Your task to perform on an android device: change text size in settings app Image 0: 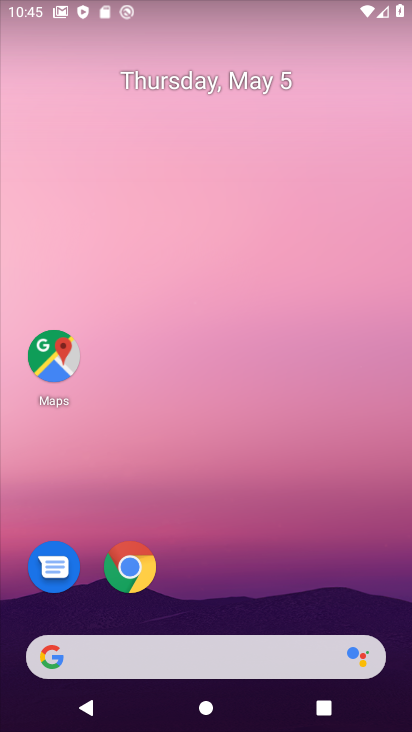
Step 0: drag from (227, 511) to (297, 43)
Your task to perform on an android device: change text size in settings app Image 1: 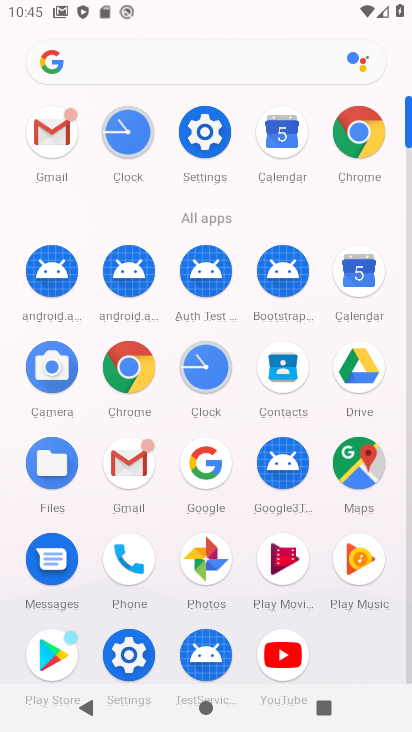
Step 1: click (206, 140)
Your task to perform on an android device: change text size in settings app Image 2: 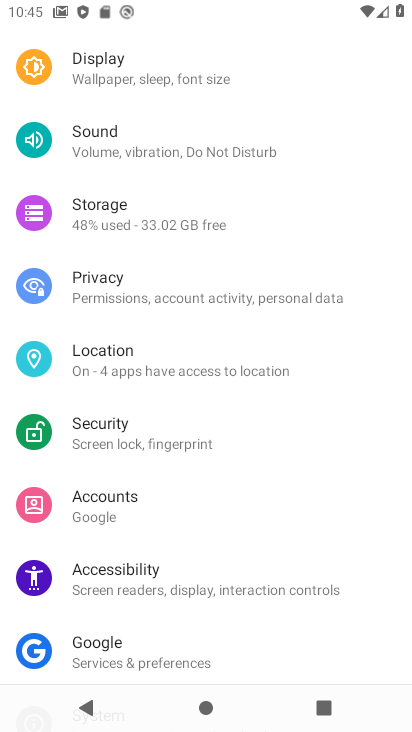
Step 2: drag from (209, 137) to (170, 592)
Your task to perform on an android device: change text size in settings app Image 3: 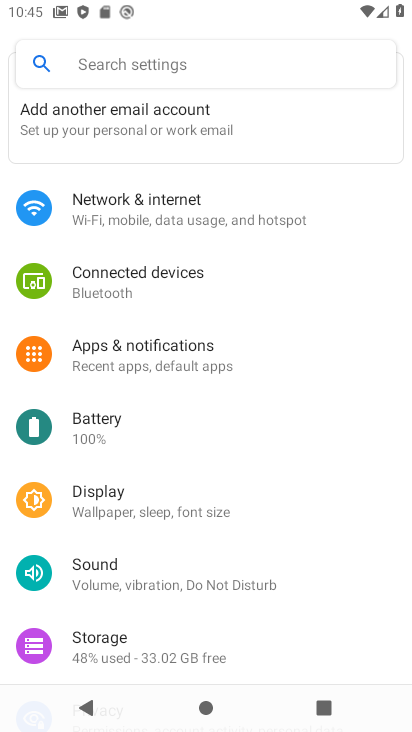
Step 3: click (123, 61)
Your task to perform on an android device: change text size in settings app Image 4: 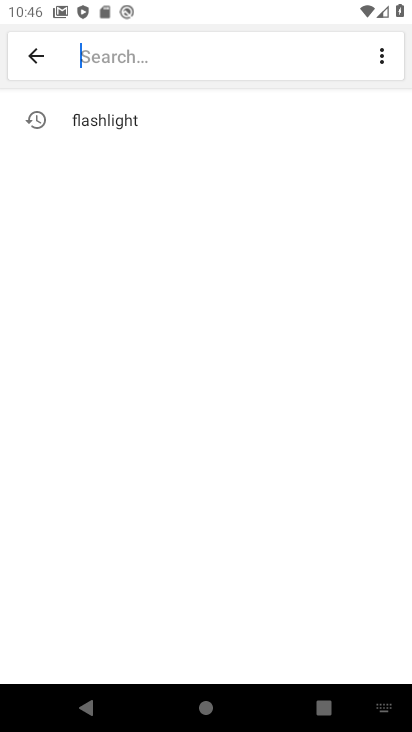
Step 4: type "text size"
Your task to perform on an android device: change text size in settings app Image 5: 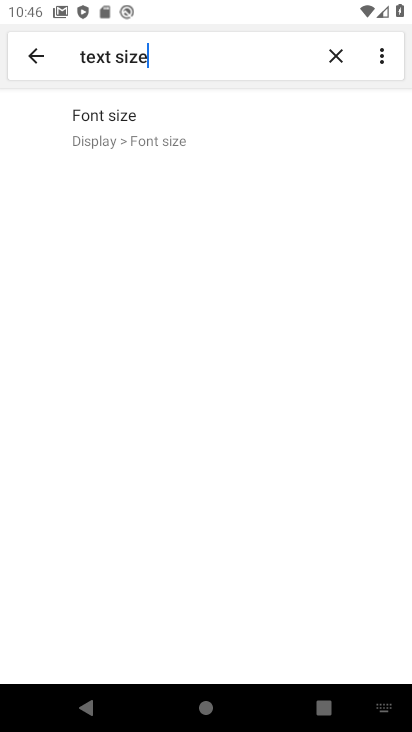
Step 5: click (137, 152)
Your task to perform on an android device: change text size in settings app Image 6: 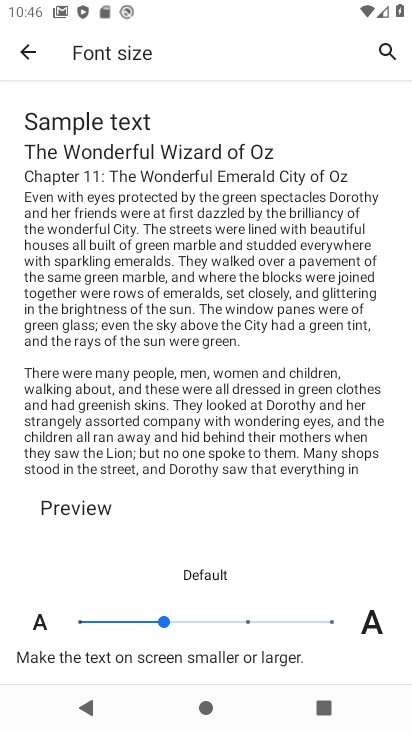
Step 6: task complete